Your task to perform on an android device: refresh tabs in the chrome app Image 0: 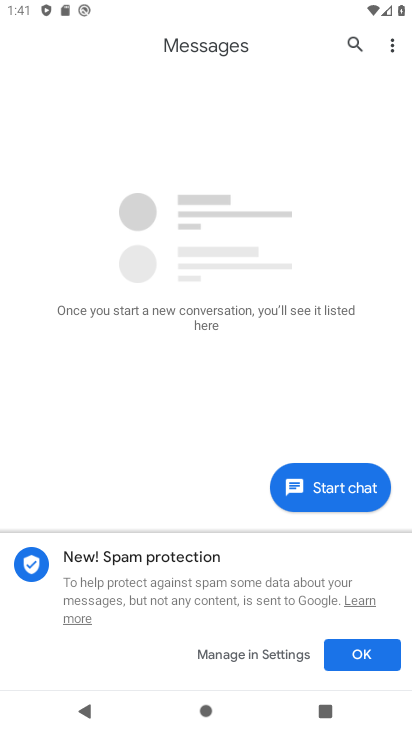
Step 0: press home button
Your task to perform on an android device: refresh tabs in the chrome app Image 1: 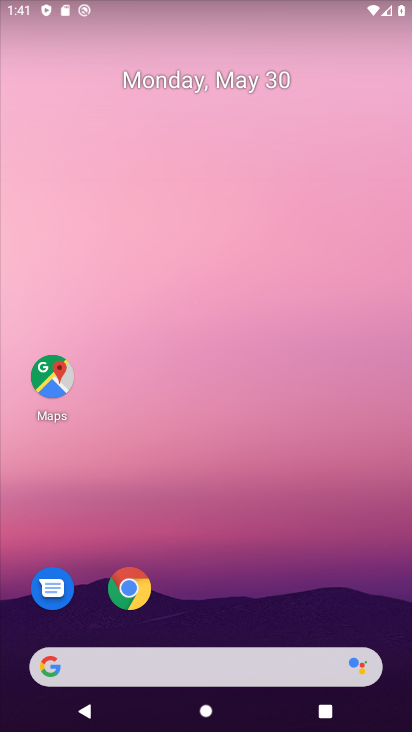
Step 1: click (124, 585)
Your task to perform on an android device: refresh tabs in the chrome app Image 2: 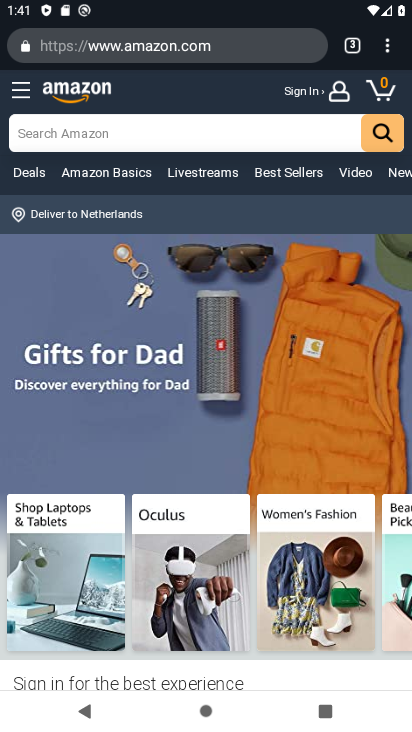
Step 2: click (383, 50)
Your task to perform on an android device: refresh tabs in the chrome app Image 3: 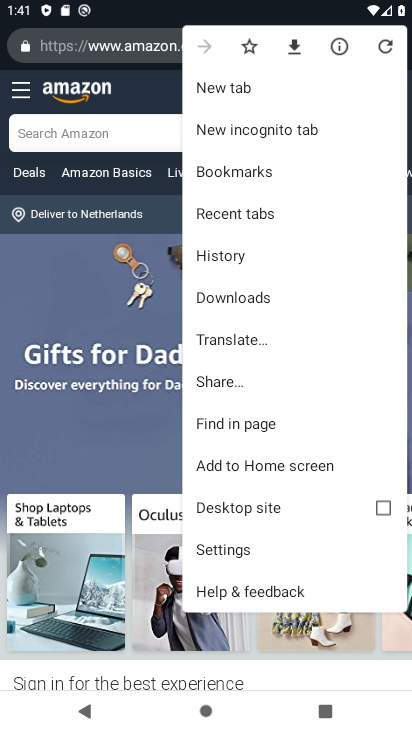
Step 3: click (386, 45)
Your task to perform on an android device: refresh tabs in the chrome app Image 4: 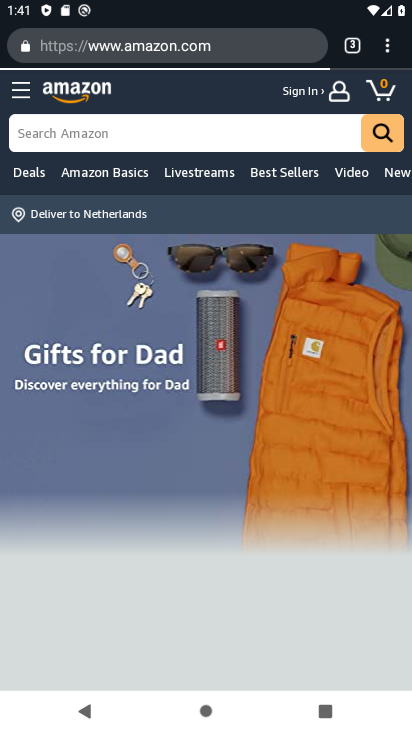
Step 4: task complete